Your task to perform on an android device: Show me the alarms in the clock app Image 0: 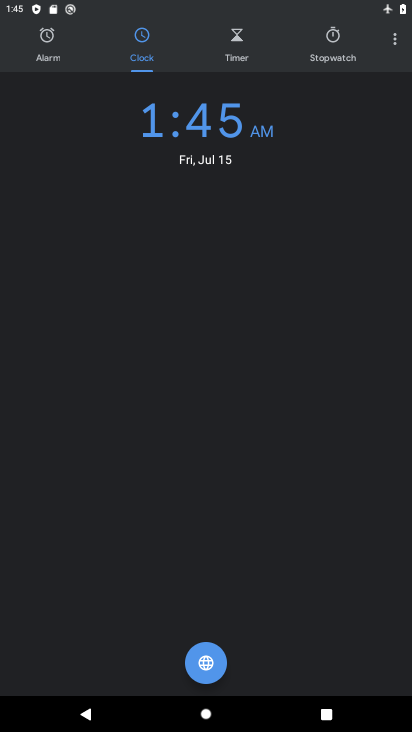
Step 0: click (82, 52)
Your task to perform on an android device: Show me the alarms in the clock app Image 1: 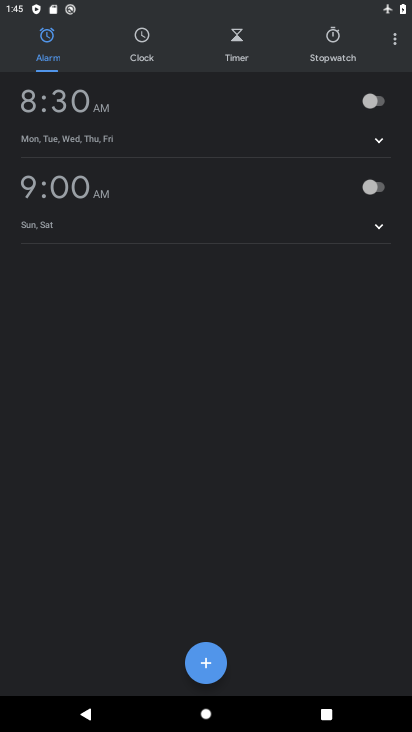
Step 1: task complete